Your task to perform on an android device: Open Chrome and go to the settings page Image 0: 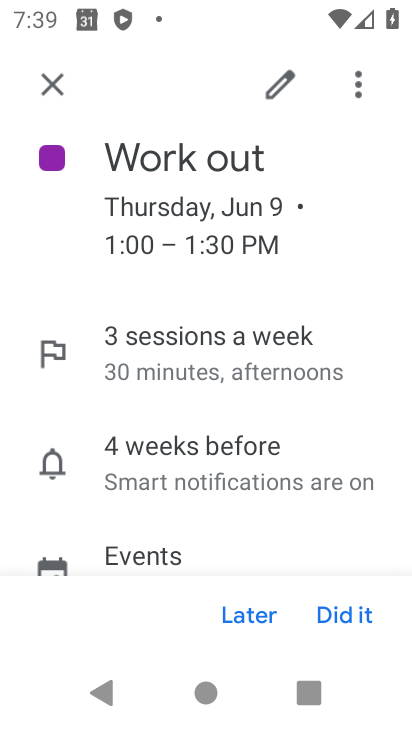
Step 0: press home button
Your task to perform on an android device: Open Chrome and go to the settings page Image 1: 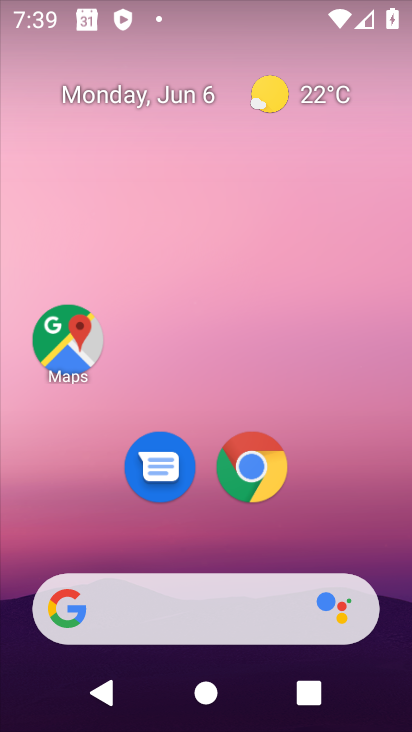
Step 1: drag from (378, 540) to (377, 138)
Your task to perform on an android device: Open Chrome and go to the settings page Image 2: 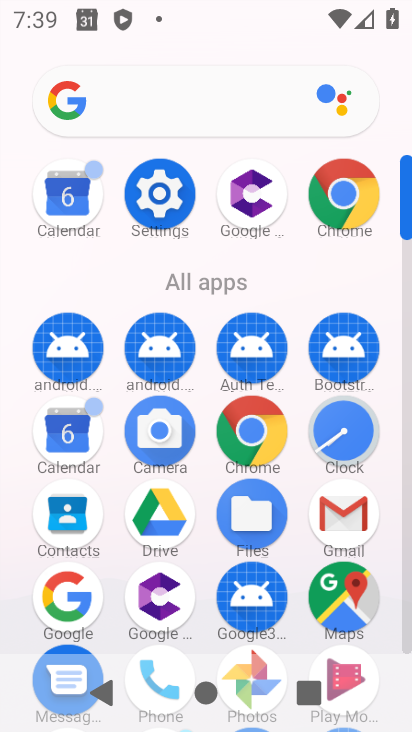
Step 2: click (369, 206)
Your task to perform on an android device: Open Chrome and go to the settings page Image 3: 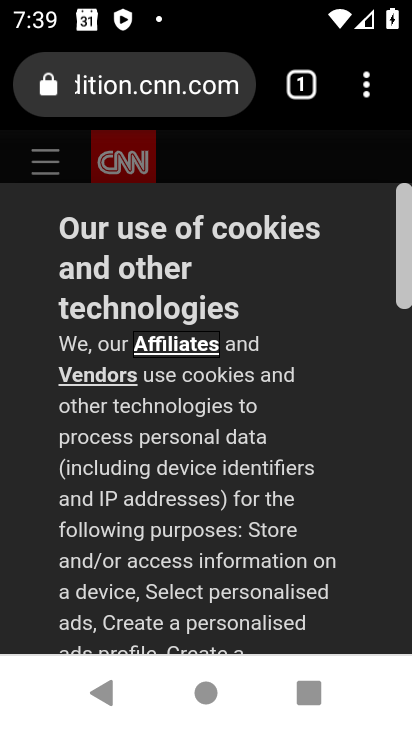
Step 3: click (366, 94)
Your task to perform on an android device: Open Chrome and go to the settings page Image 4: 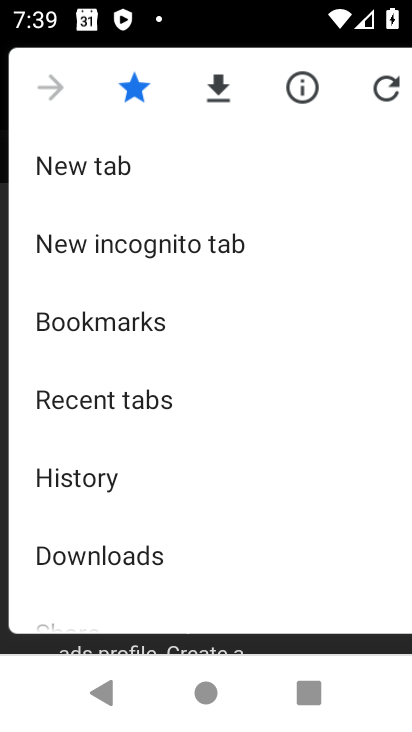
Step 4: drag from (343, 376) to (357, 316)
Your task to perform on an android device: Open Chrome and go to the settings page Image 5: 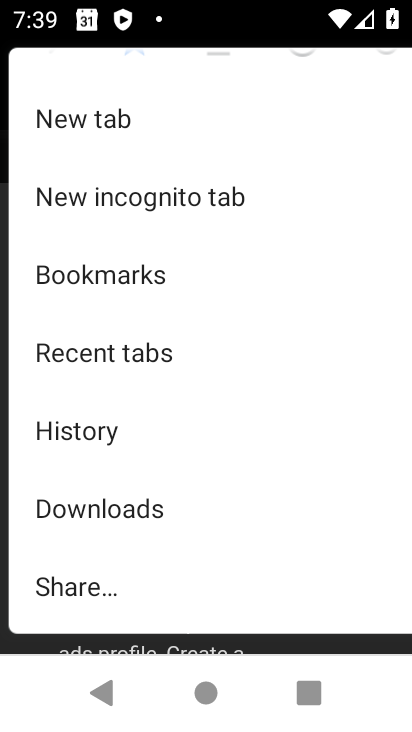
Step 5: drag from (339, 419) to (320, 337)
Your task to perform on an android device: Open Chrome and go to the settings page Image 6: 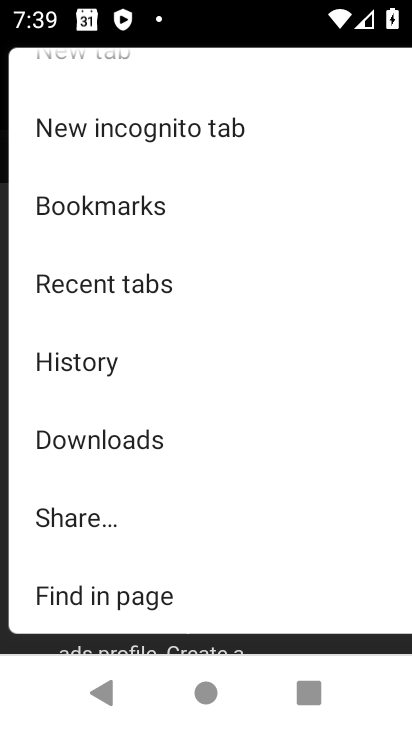
Step 6: drag from (297, 416) to (310, 347)
Your task to perform on an android device: Open Chrome and go to the settings page Image 7: 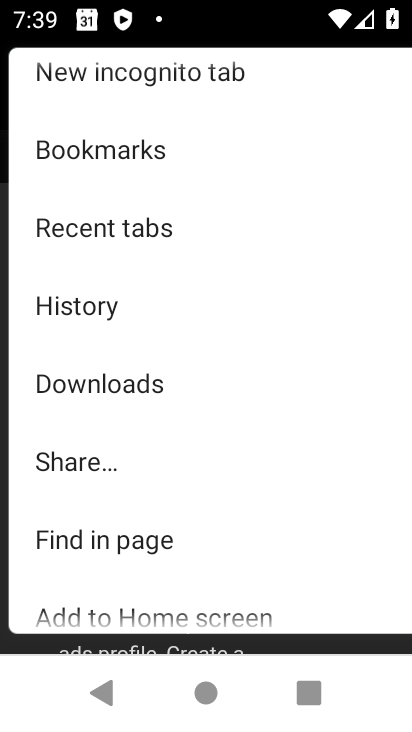
Step 7: drag from (301, 438) to (305, 347)
Your task to perform on an android device: Open Chrome and go to the settings page Image 8: 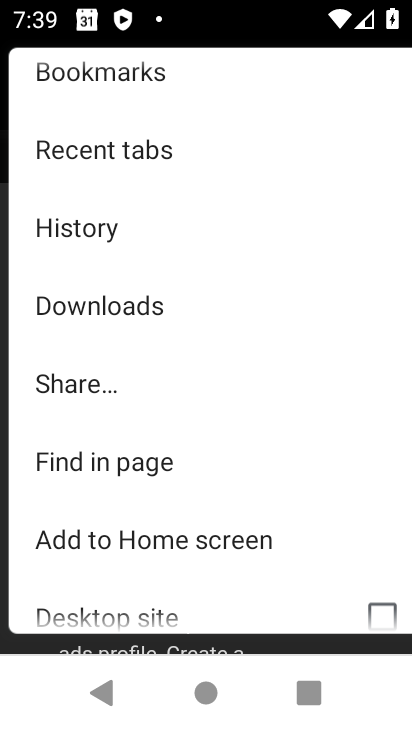
Step 8: drag from (314, 492) to (323, 343)
Your task to perform on an android device: Open Chrome and go to the settings page Image 9: 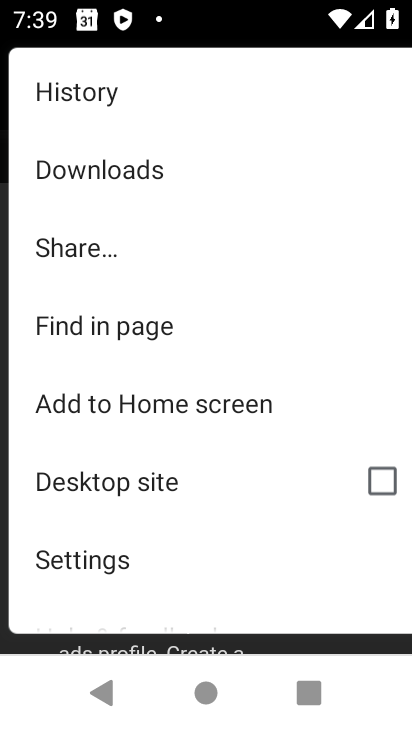
Step 9: drag from (303, 473) to (322, 325)
Your task to perform on an android device: Open Chrome and go to the settings page Image 10: 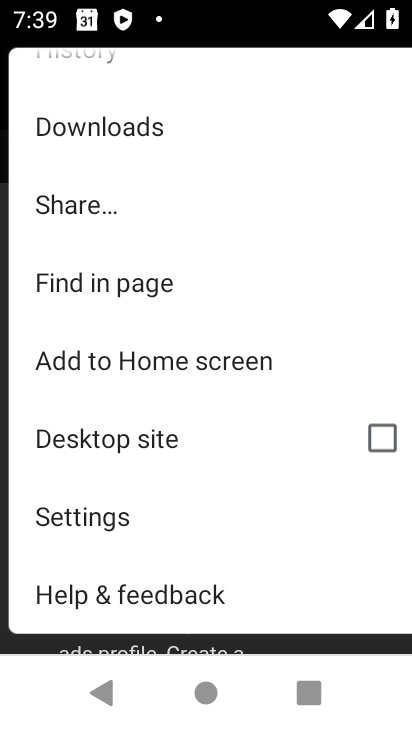
Step 10: click (142, 534)
Your task to perform on an android device: Open Chrome and go to the settings page Image 11: 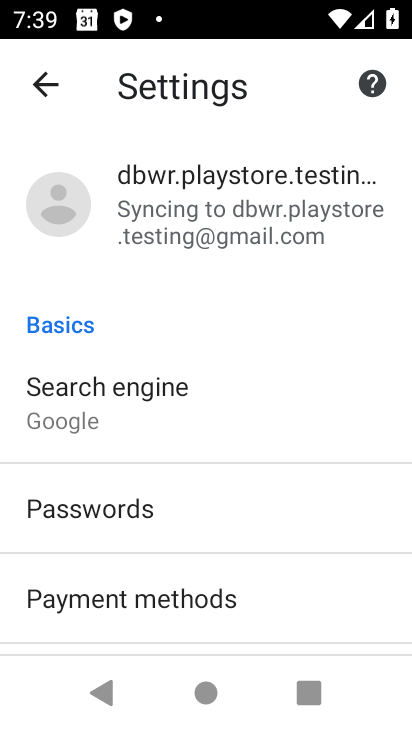
Step 11: task complete